Your task to perform on an android device: Open Google Chrome Image 0: 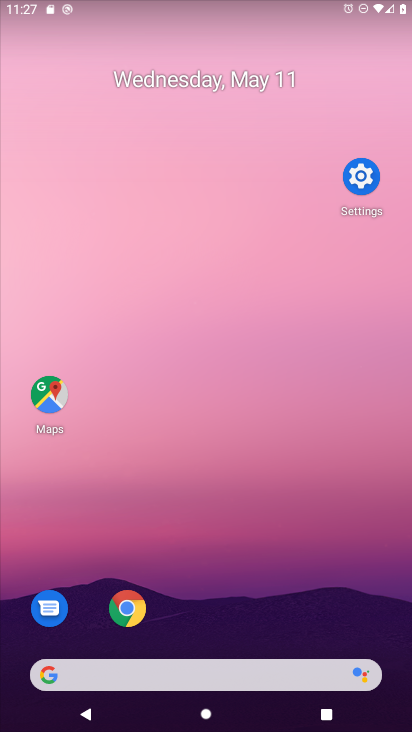
Step 0: drag from (317, 617) to (54, 115)
Your task to perform on an android device: Open Google Chrome Image 1: 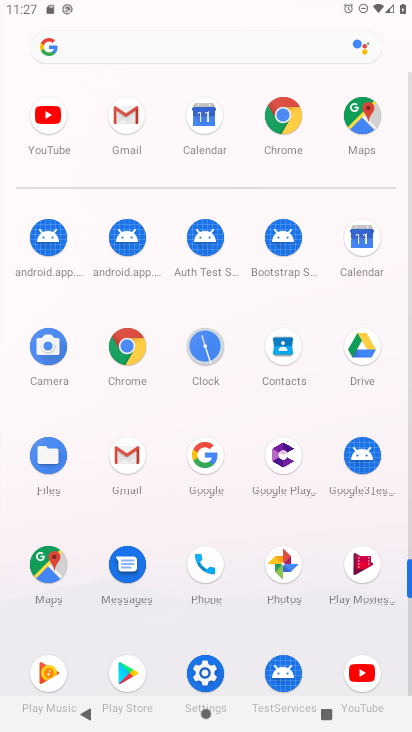
Step 1: click (282, 125)
Your task to perform on an android device: Open Google Chrome Image 2: 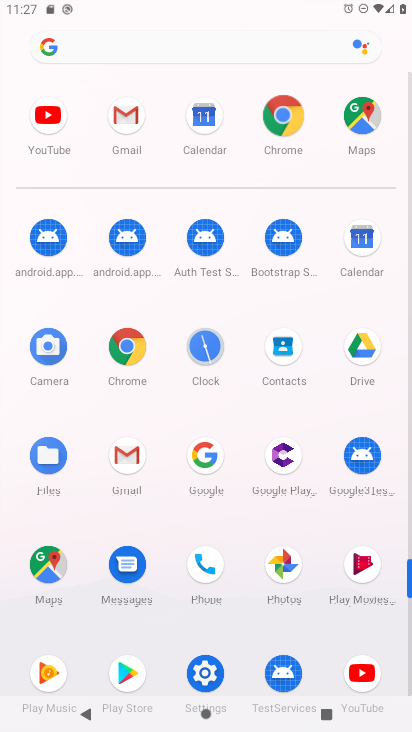
Step 2: click (282, 125)
Your task to perform on an android device: Open Google Chrome Image 3: 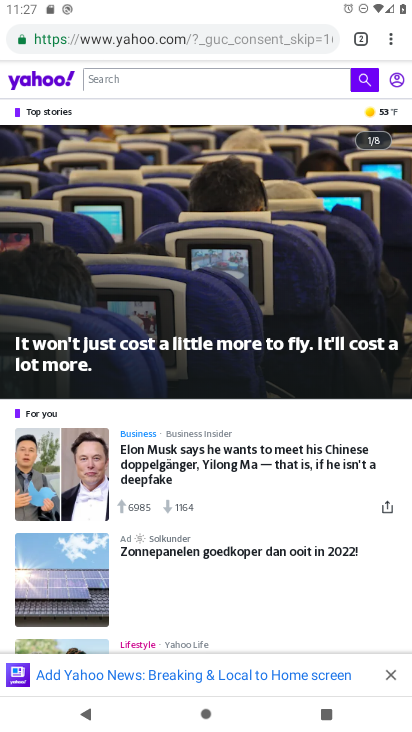
Step 3: press back button
Your task to perform on an android device: Open Google Chrome Image 4: 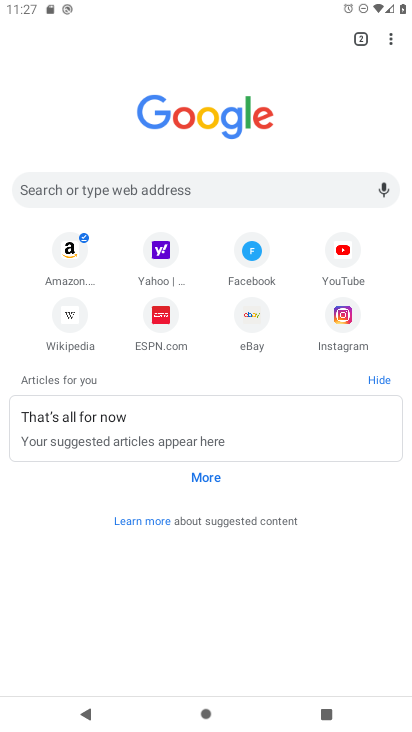
Step 4: press home button
Your task to perform on an android device: Open Google Chrome Image 5: 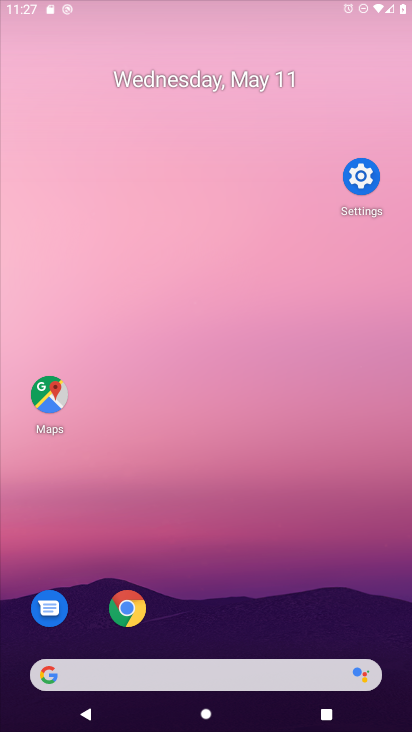
Step 5: drag from (299, 551) to (175, 52)
Your task to perform on an android device: Open Google Chrome Image 6: 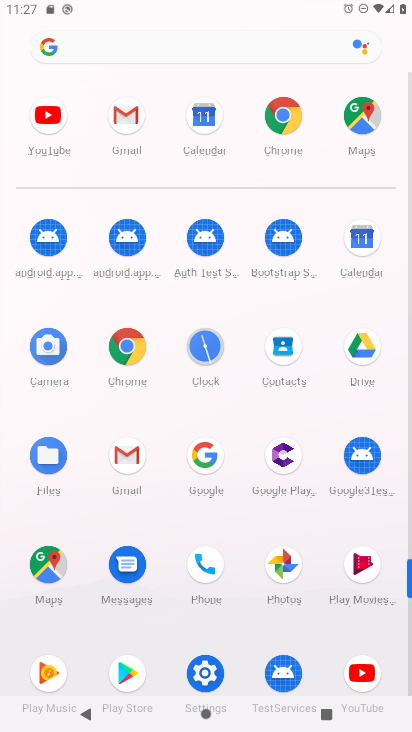
Step 6: click (203, 463)
Your task to perform on an android device: Open Google Chrome Image 7: 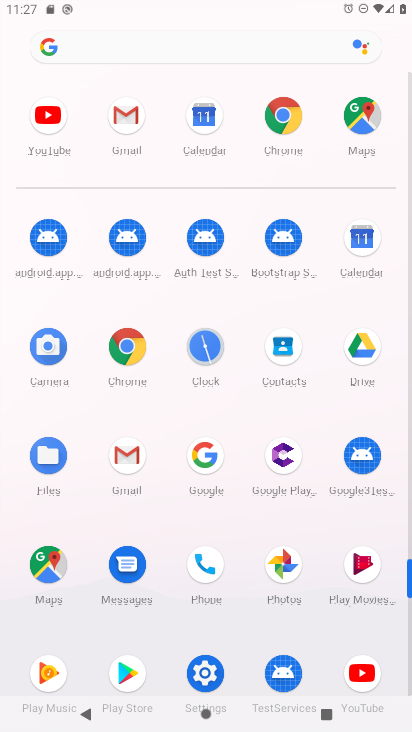
Step 7: click (205, 460)
Your task to perform on an android device: Open Google Chrome Image 8: 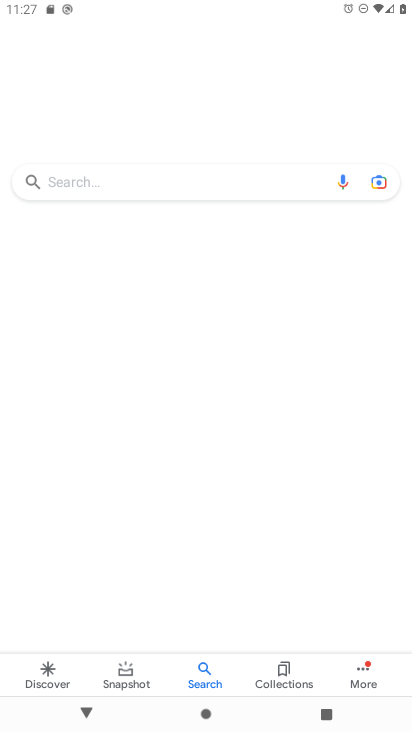
Step 8: task complete